Your task to perform on an android device: Search for Mexican restaurants on Maps Image 0: 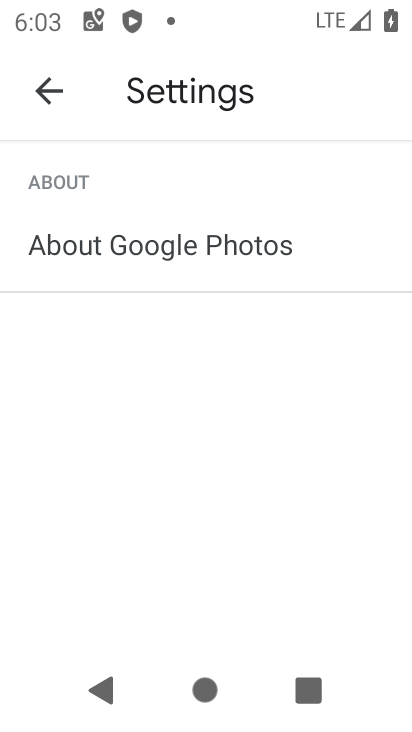
Step 0: press home button
Your task to perform on an android device: Search for Mexican restaurants on Maps Image 1: 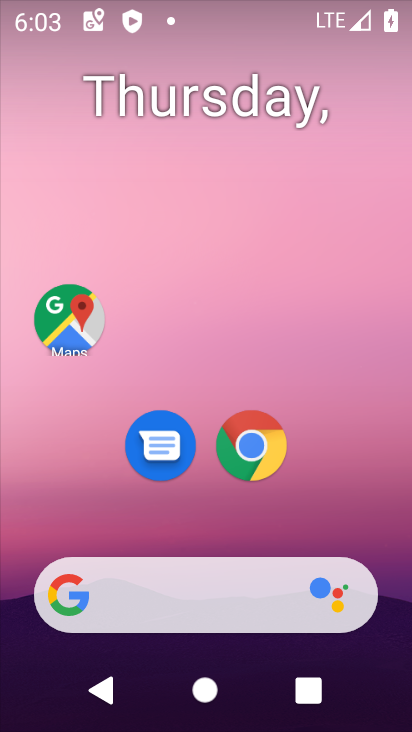
Step 1: click (68, 313)
Your task to perform on an android device: Search for Mexican restaurants on Maps Image 2: 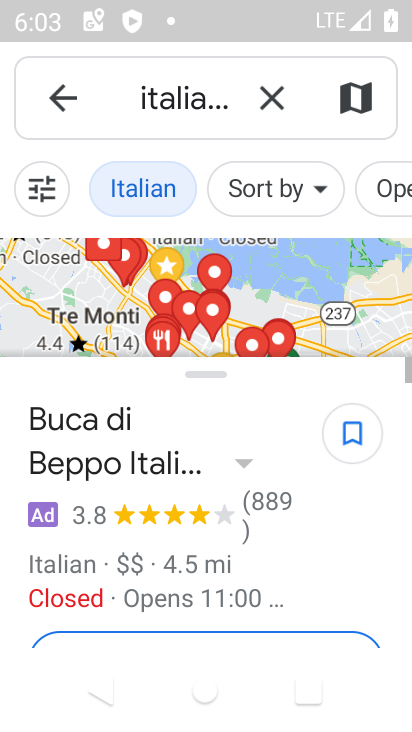
Step 2: click (266, 95)
Your task to perform on an android device: Search for Mexican restaurants on Maps Image 3: 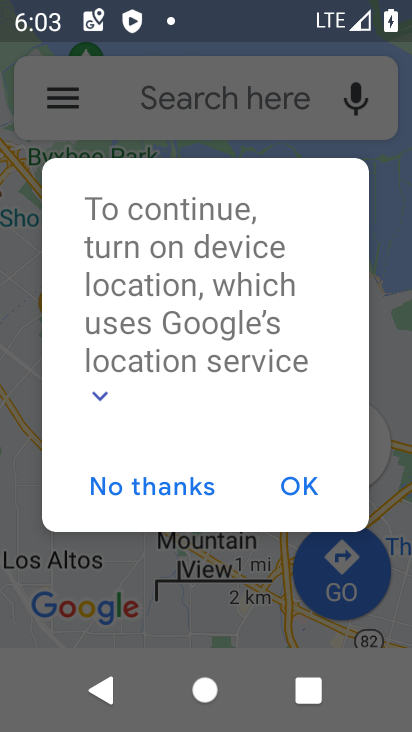
Step 3: click (280, 485)
Your task to perform on an android device: Search for Mexican restaurants on Maps Image 4: 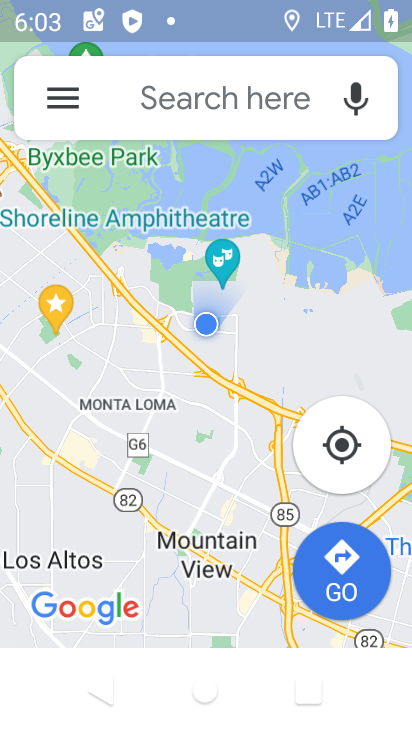
Step 4: click (132, 99)
Your task to perform on an android device: Search for Mexican restaurants on Maps Image 5: 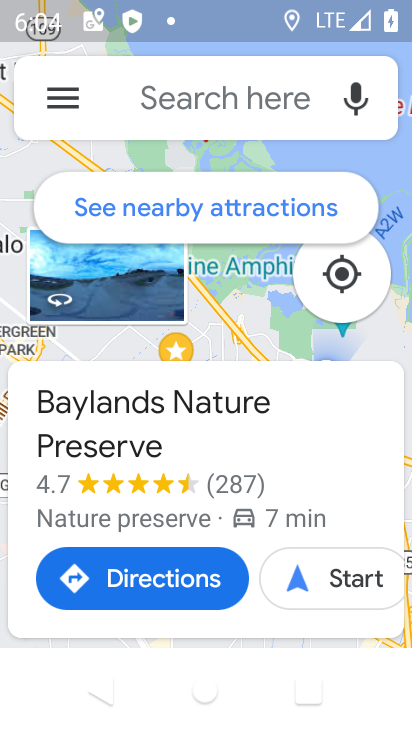
Step 5: click (136, 104)
Your task to perform on an android device: Search for Mexican restaurants on Maps Image 6: 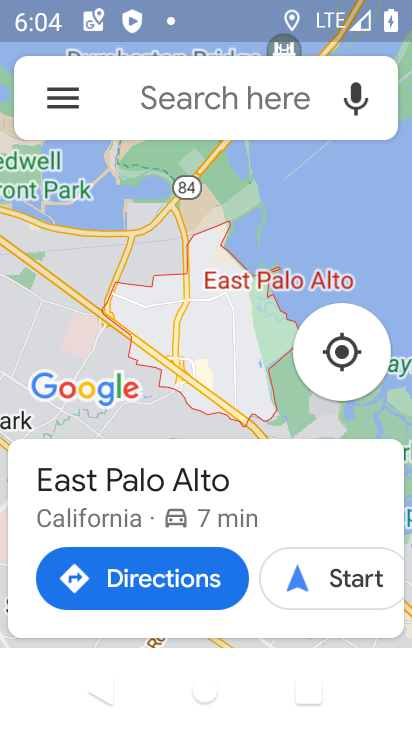
Step 6: click (116, 90)
Your task to perform on an android device: Search for Mexican restaurants on Maps Image 7: 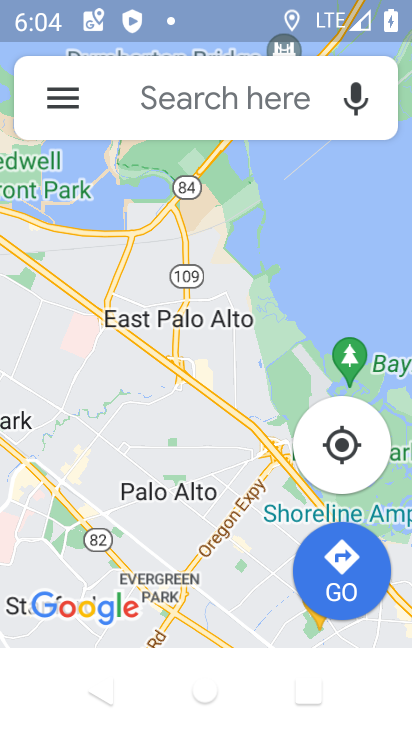
Step 7: click (158, 93)
Your task to perform on an android device: Search for Mexican restaurants on Maps Image 8: 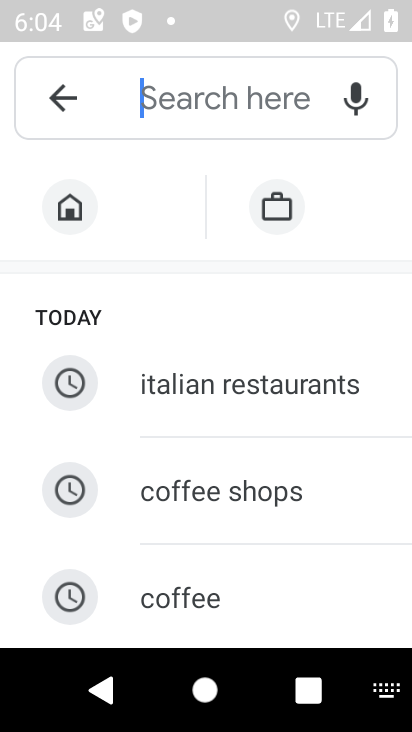
Step 8: type " Mexican restaurants"
Your task to perform on an android device: Search for Mexican restaurants on Maps Image 9: 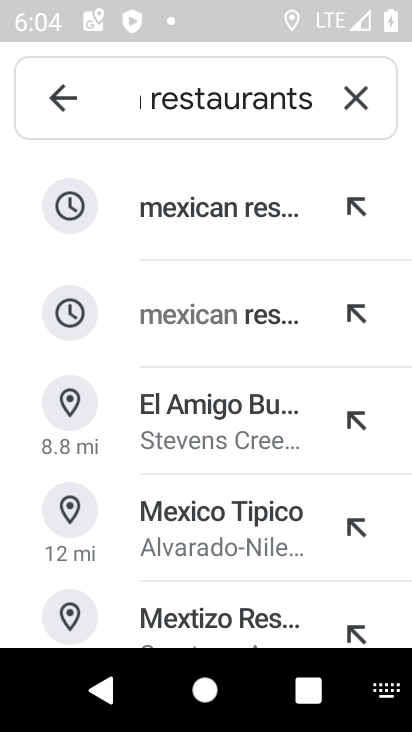
Step 9: click (218, 209)
Your task to perform on an android device: Search for Mexican restaurants on Maps Image 10: 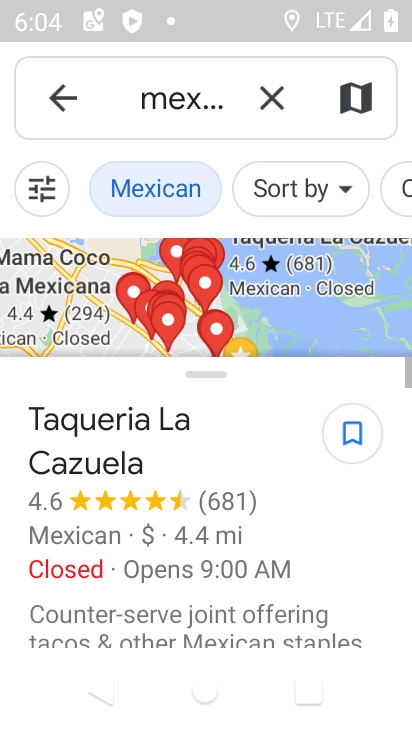
Step 10: task complete